Your task to perform on an android device: allow cookies in the chrome app Image 0: 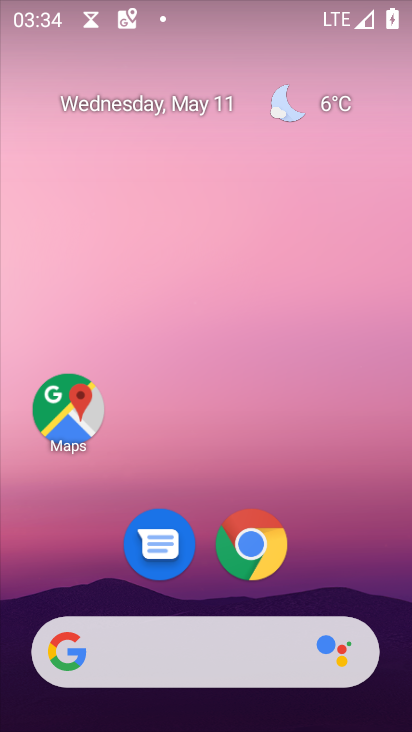
Step 0: click (251, 545)
Your task to perform on an android device: allow cookies in the chrome app Image 1: 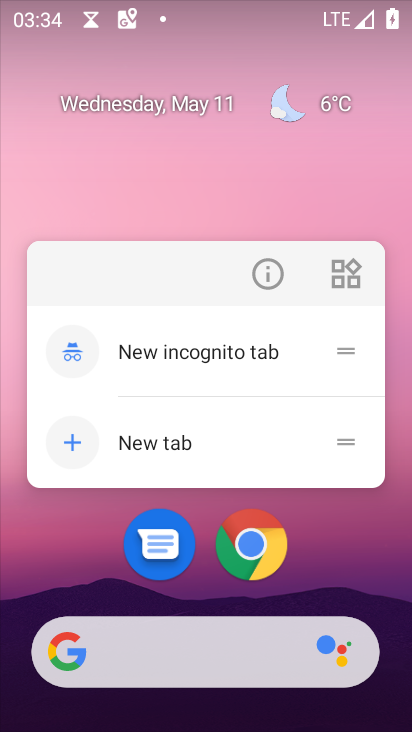
Step 1: click (251, 544)
Your task to perform on an android device: allow cookies in the chrome app Image 2: 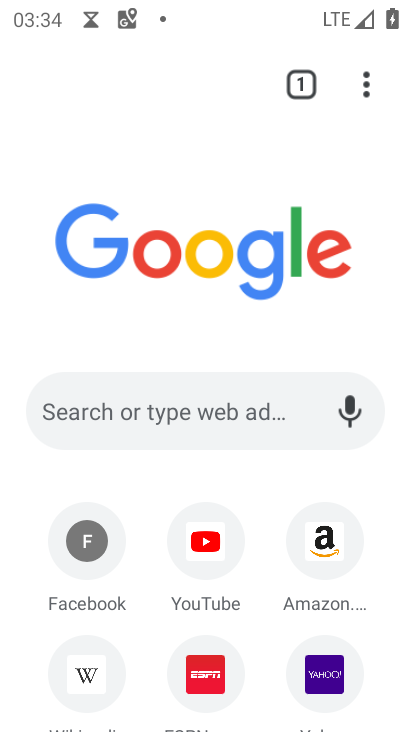
Step 2: click (376, 90)
Your task to perform on an android device: allow cookies in the chrome app Image 3: 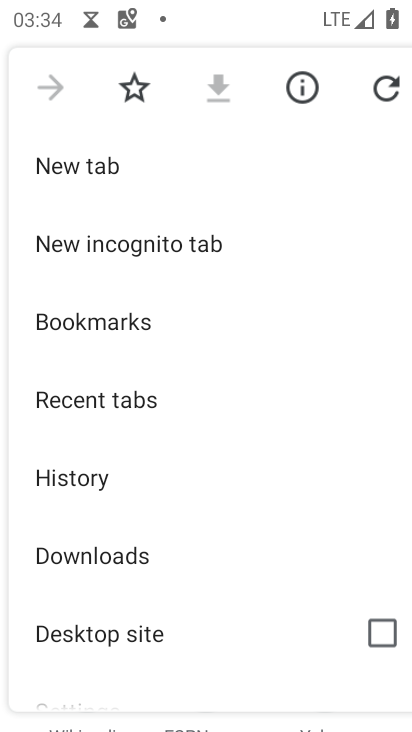
Step 3: drag from (134, 629) to (132, 315)
Your task to perform on an android device: allow cookies in the chrome app Image 4: 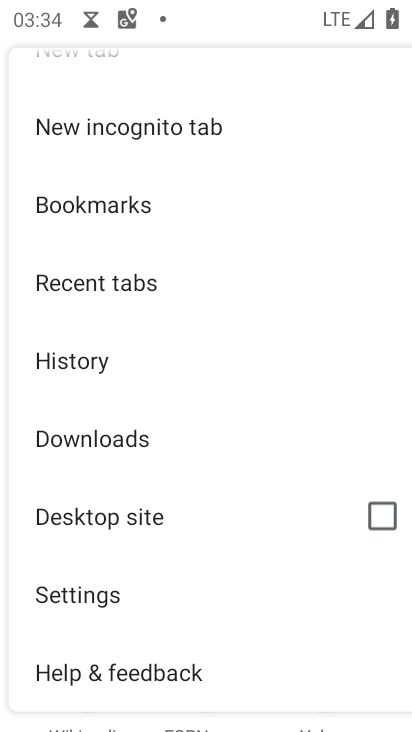
Step 4: click (132, 587)
Your task to perform on an android device: allow cookies in the chrome app Image 5: 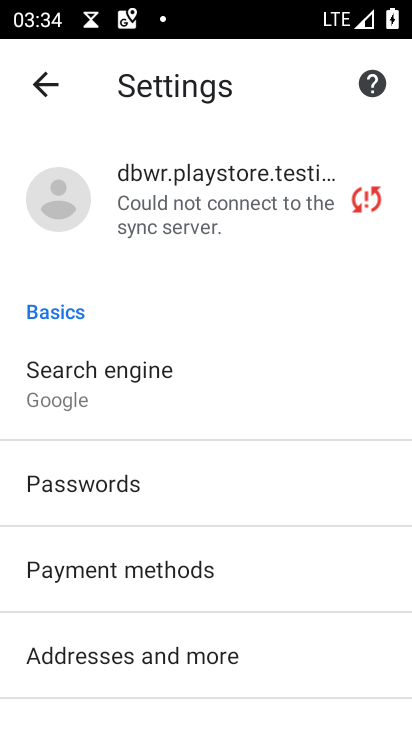
Step 5: drag from (135, 613) to (198, 281)
Your task to perform on an android device: allow cookies in the chrome app Image 6: 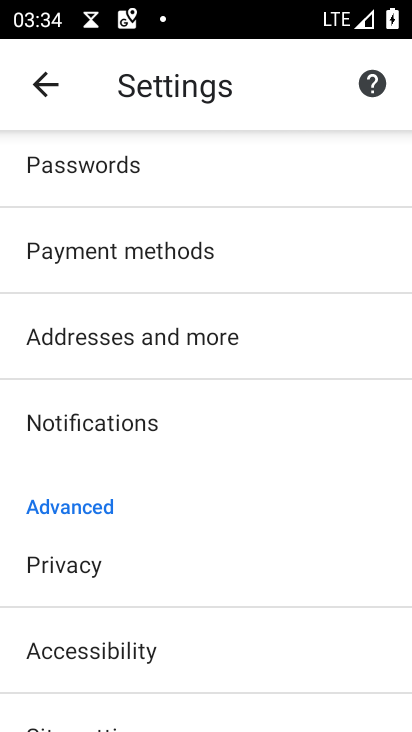
Step 6: drag from (133, 628) to (169, 356)
Your task to perform on an android device: allow cookies in the chrome app Image 7: 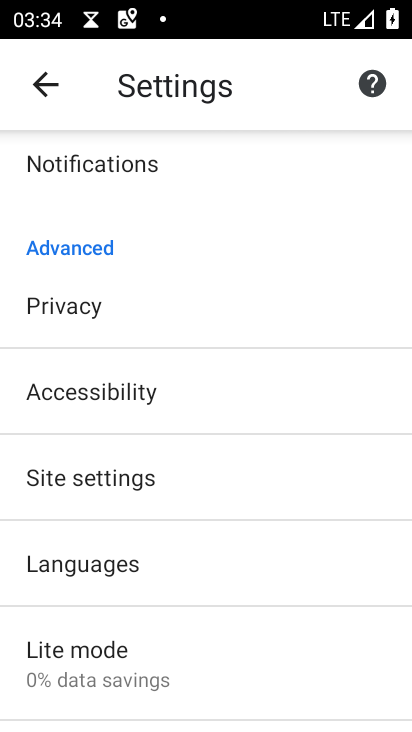
Step 7: click (121, 480)
Your task to perform on an android device: allow cookies in the chrome app Image 8: 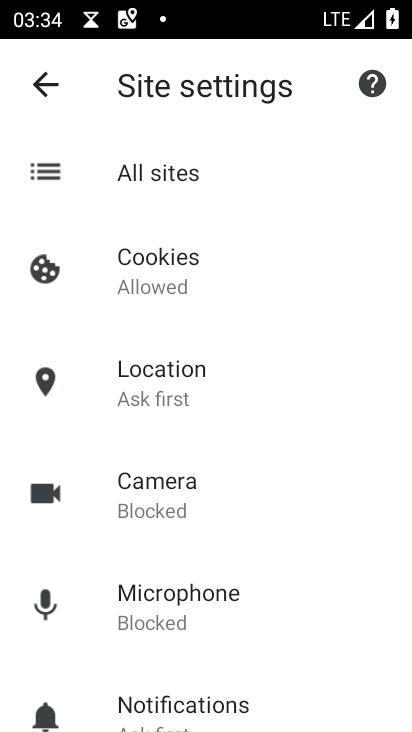
Step 8: click (212, 256)
Your task to perform on an android device: allow cookies in the chrome app Image 9: 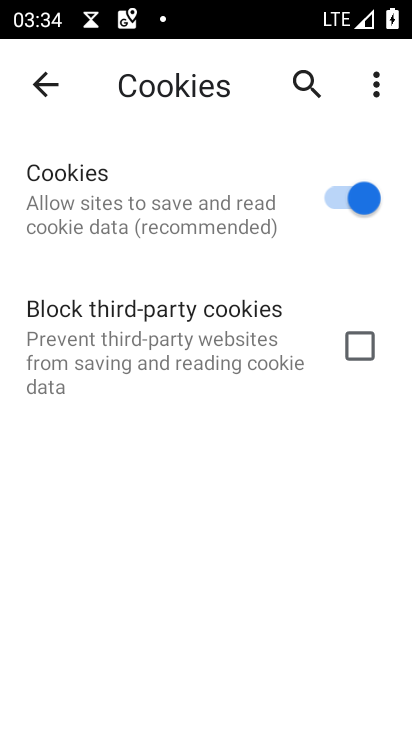
Step 9: task complete